Your task to perform on an android device: Open the calendar and show me this week's events Image 0: 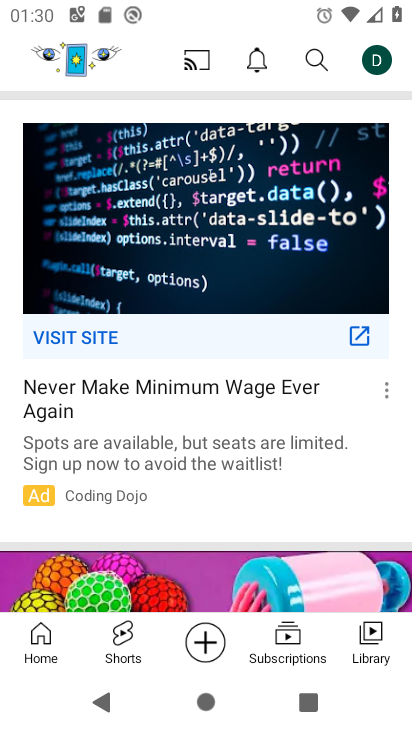
Step 0: press home button
Your task to perform on an android device: Open the calendar and show me this week's events Image 1: 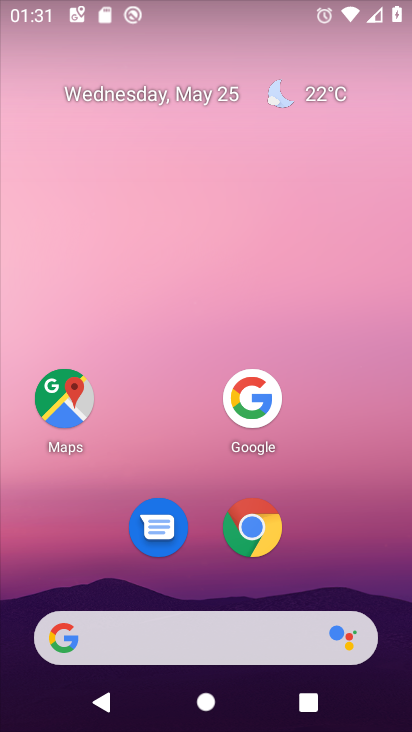
Step 1: drag from (214, 636) to (350, 58)
Your task to perform on an android device: Open the calendar and show me this week's events Image 2: 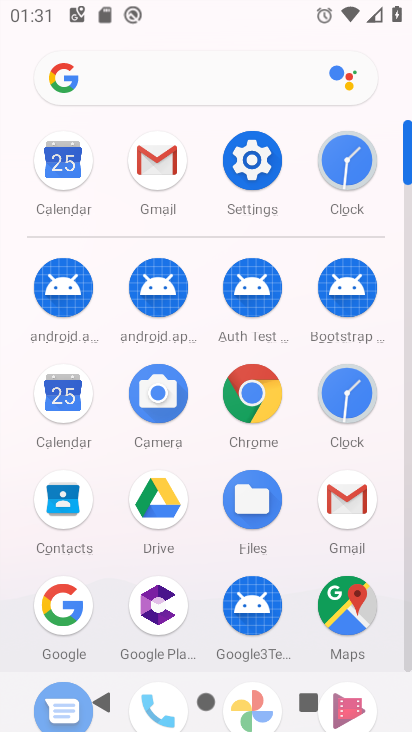
Step 2: click (60, 398)
Your task to perform on an android device: Open the calendar and show me this week's events Image 3: 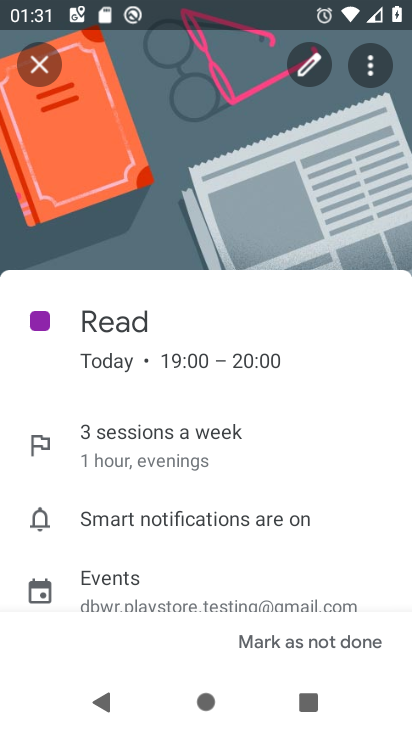
Step 3: click (30, 65)
Your task to perform on an android device: Open the calendar and show me this week's events Image 4: 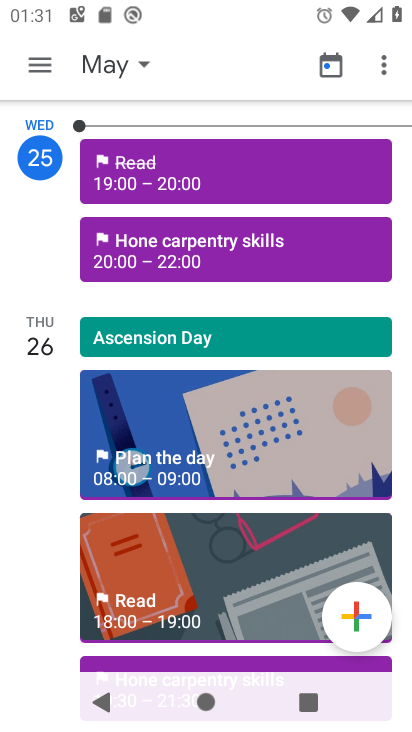
Step 4: click (104, 64)
Your task to perform on an android device: Open the calendar and show me this week's events Image 5: 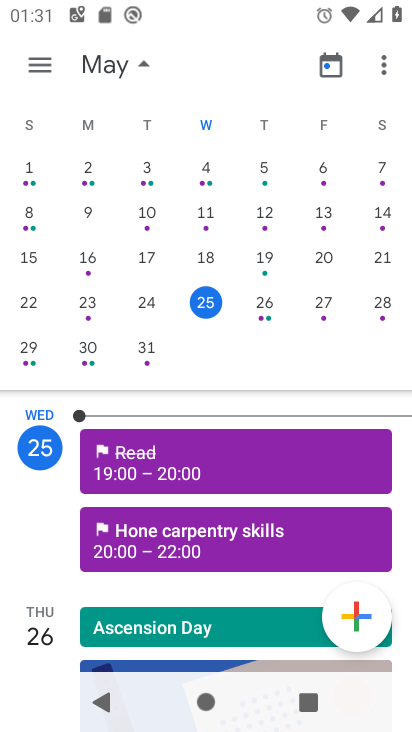
Step 5: click (35, 351)
Your task to perform on an android device: Open the calendar and show me this week's events Image 6: 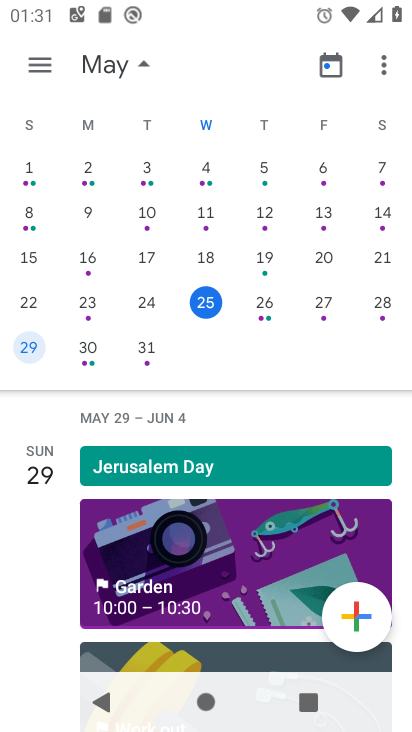
Step 6: click (43, 63)
Your task to perform on an android device: Open the calendar and show me this week's events Image 7: 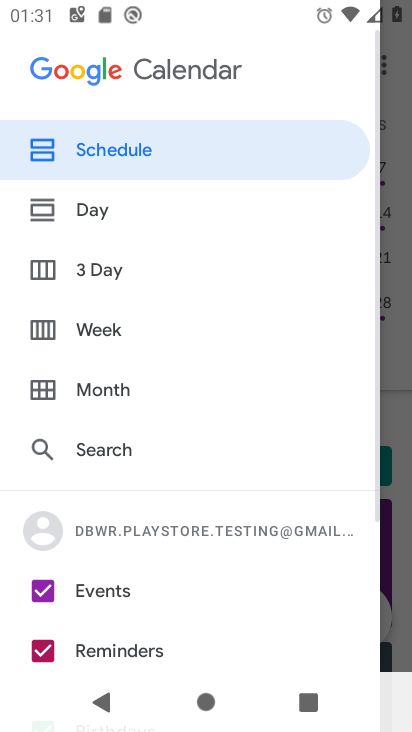
Step 7: click (97, 329)
Your task to perform on an android device: Open the calendar and show me this week's events Image 8: 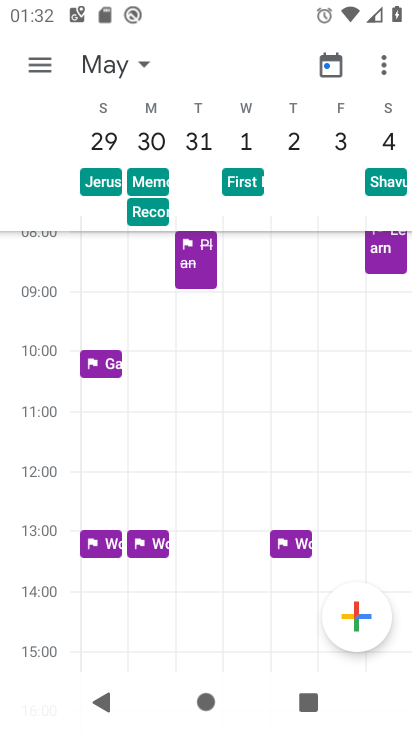
Step 8: task complete